Your task to perform on an android device: Open sound settings Image 0: 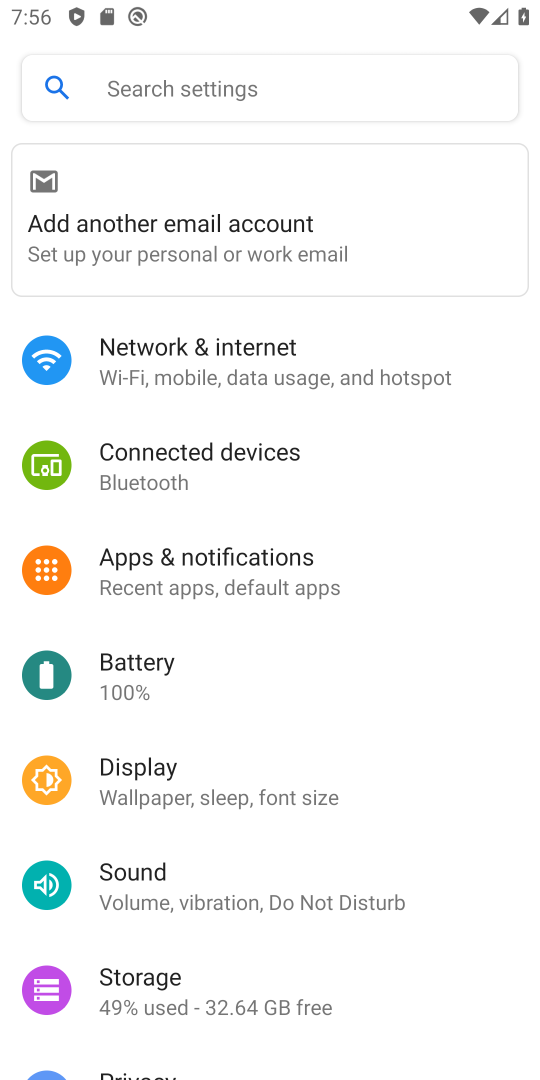
Step 0: click (270, 856)
Your task to perform on an android device: Open sound settings Image 1: 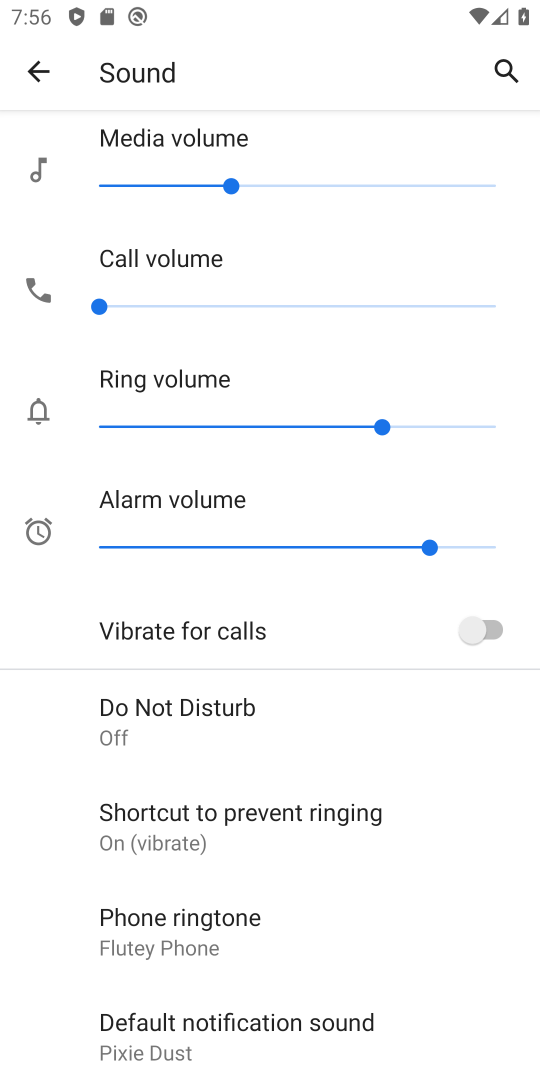
Step 1: task complete